Your task to perform on an android device: Go to battery settings Image 0: 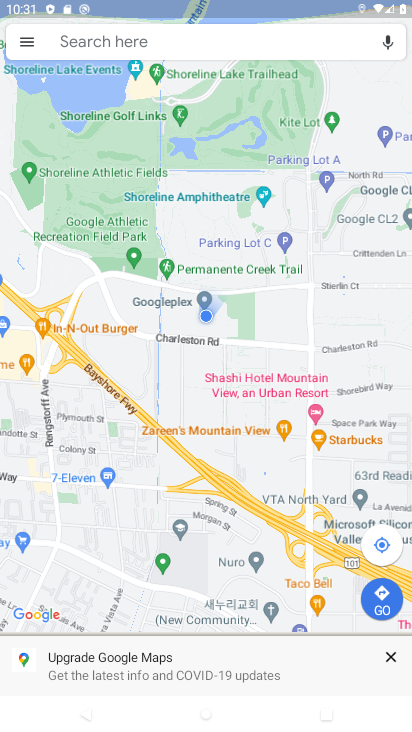
Step 0: press home button
Your task to perform on an android device: Go to battery settings Image 1: 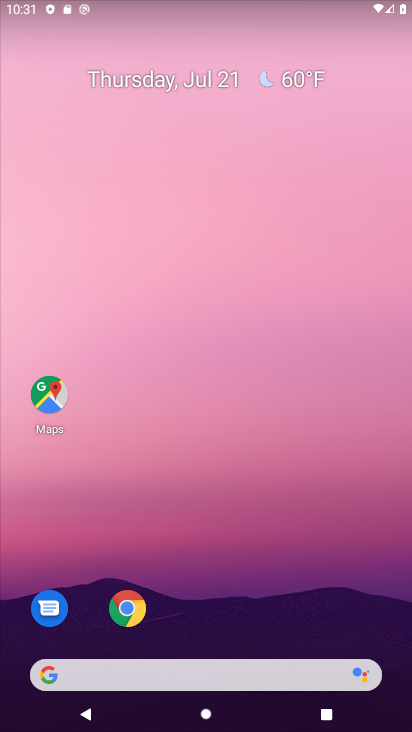
Step 1: drag from (225, 591) to (241, 236)
Your task to perform on an android device: Go to battery settings Image 2: 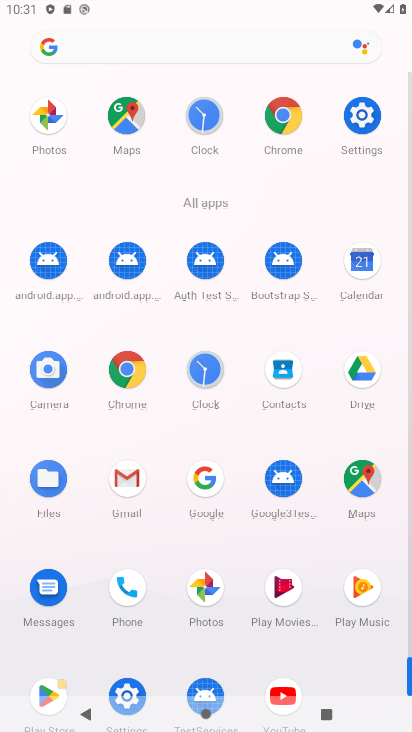
Step 2: click (129, 681)
Your task to perform on an android device: Go to battery settings Image 3: 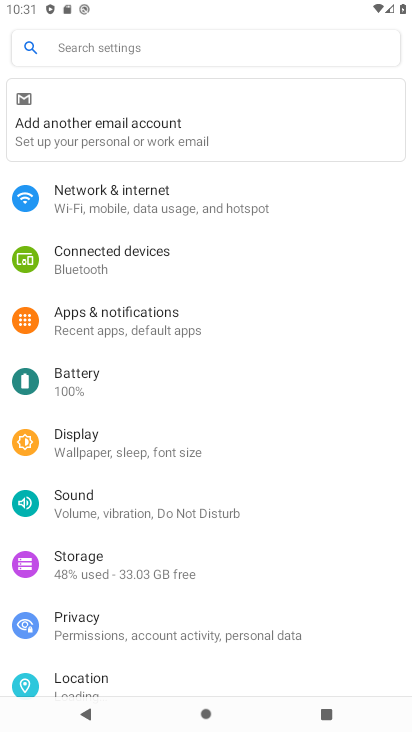
Step 3: click (88, 373)
Your task to perform on an android device: Go to battery settings Image 4: 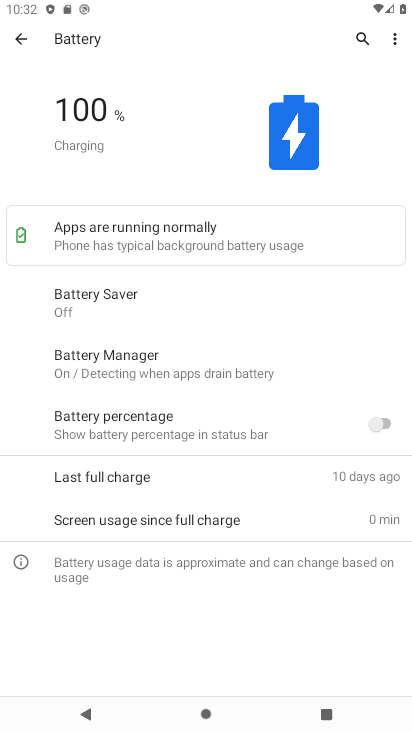
Step 4: task complete